Your task to perform on an android device: turn notification dots on Image 0: 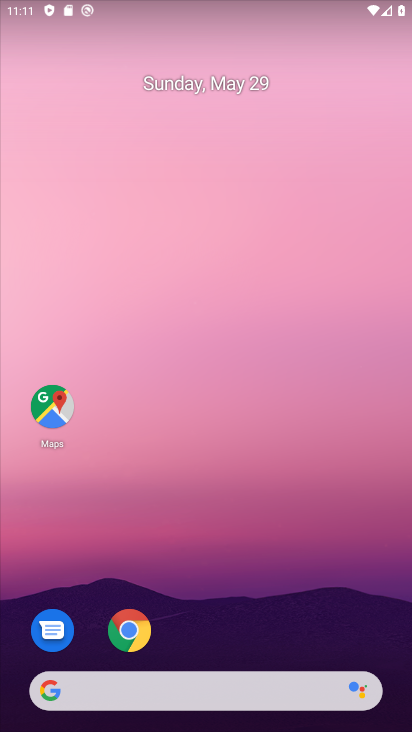
Step 0: drag from (139, 725) to (202, 44)
Your task to perform on an android device: turn notification dots on Image 1: 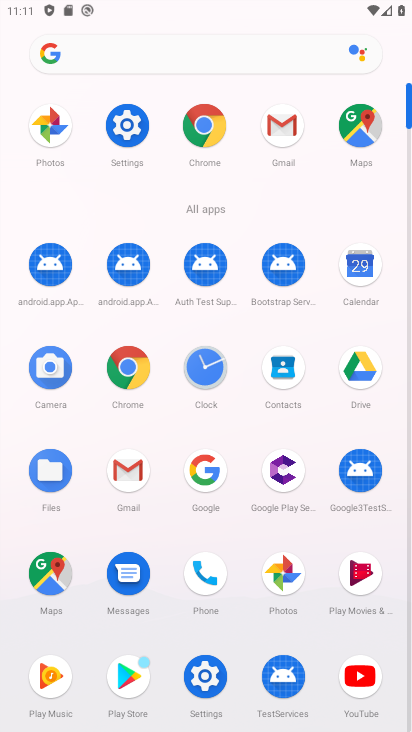
Step 1: click (117, 121)
Your task to perform on an android device: turn notification dots on Image 2: 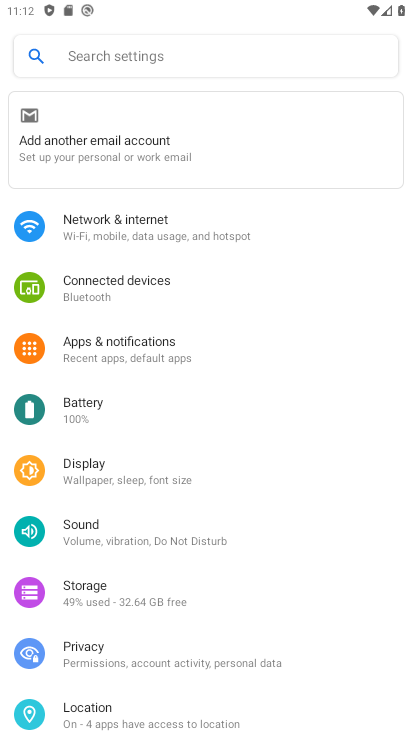
Step 2: click (93, 356)
Your task to perform on an android device: turn notification dots on Image 3: 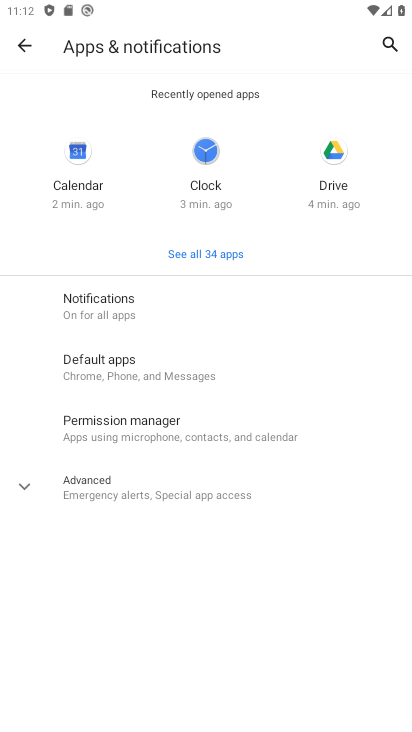
Step 3: click (132, 316)
Your task to perform on an android device: turn notification dots on Image 4: 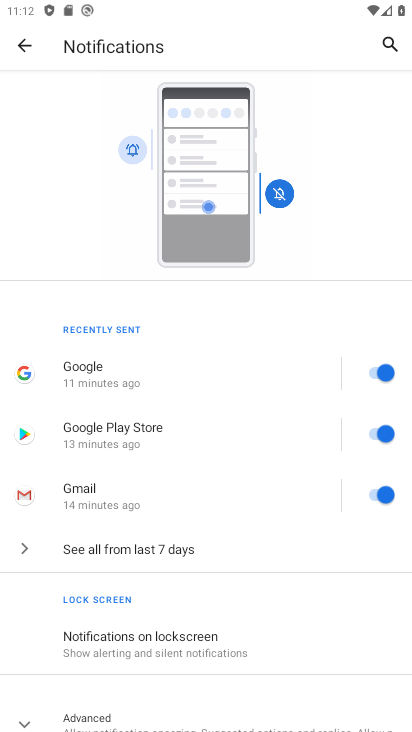
Step 4: drag from (224, 694) to (233, 278)
Your task to perform on an android device: turn notification dots on Image 5: 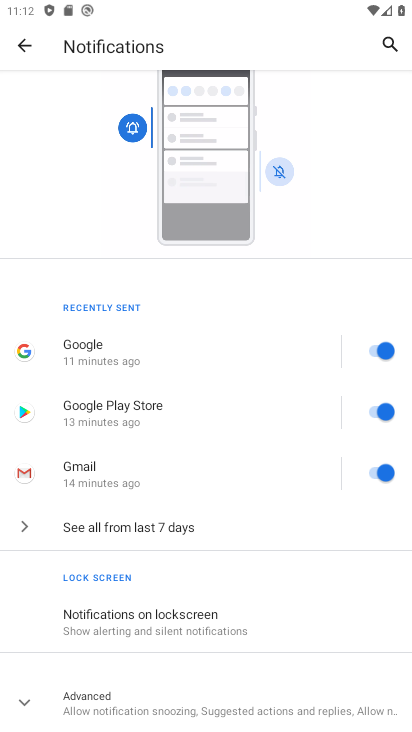
Step 5: click (97, 710)
Your task to perform on an android device: turn notification dots on Image 6: 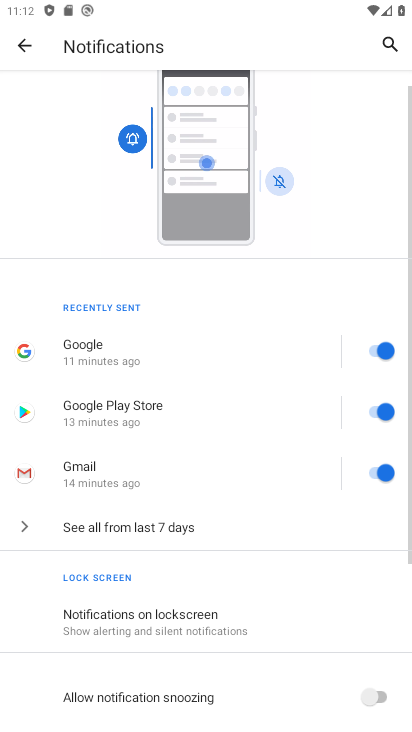
Step 6: task complete